Your task to perform on an android device: Clear the shopping cart on target. Add "lenovo thinkpad" to the cart on target, then select checkout. Image 0: 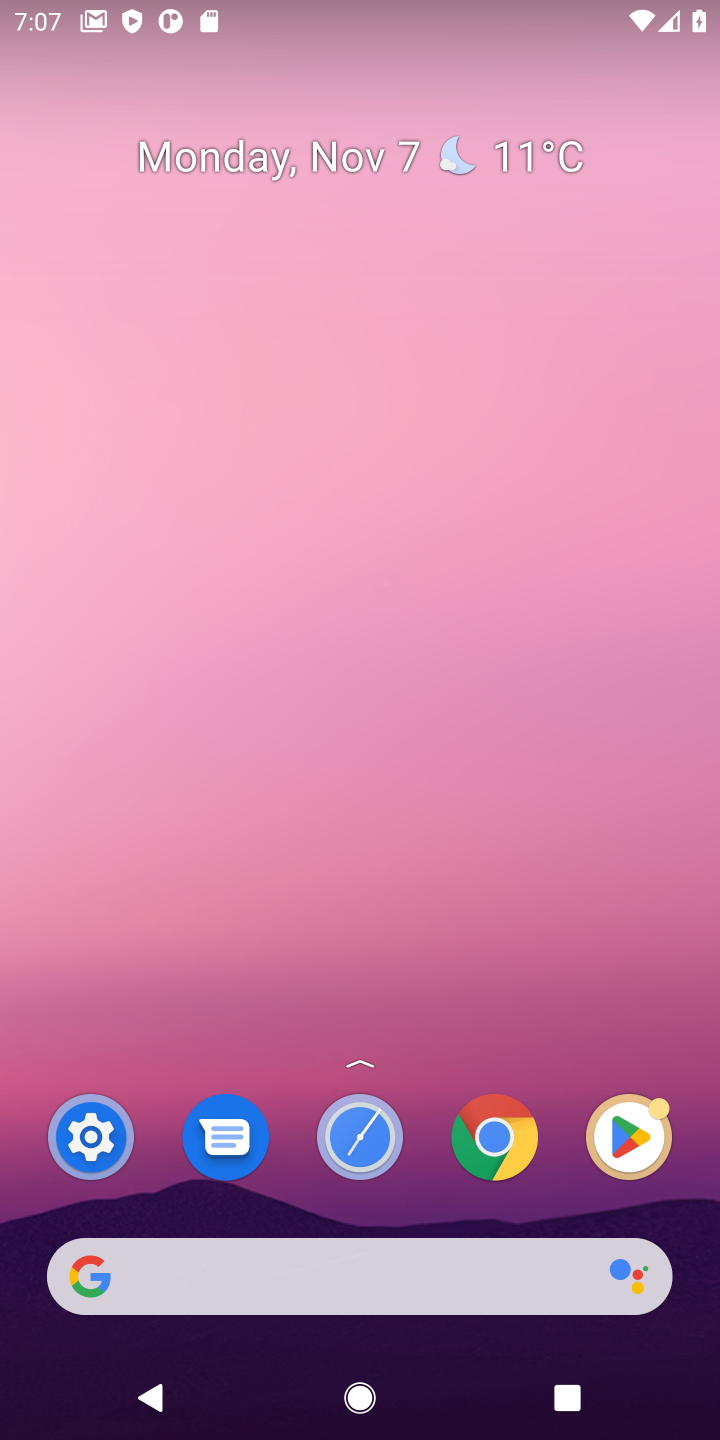
Step 0: click (485, 1140)
Your task to perform on an android device: Clear the shopping cart on target. Add "lenovo thinkpad" to the cart on target, then select checkout. Image 1: 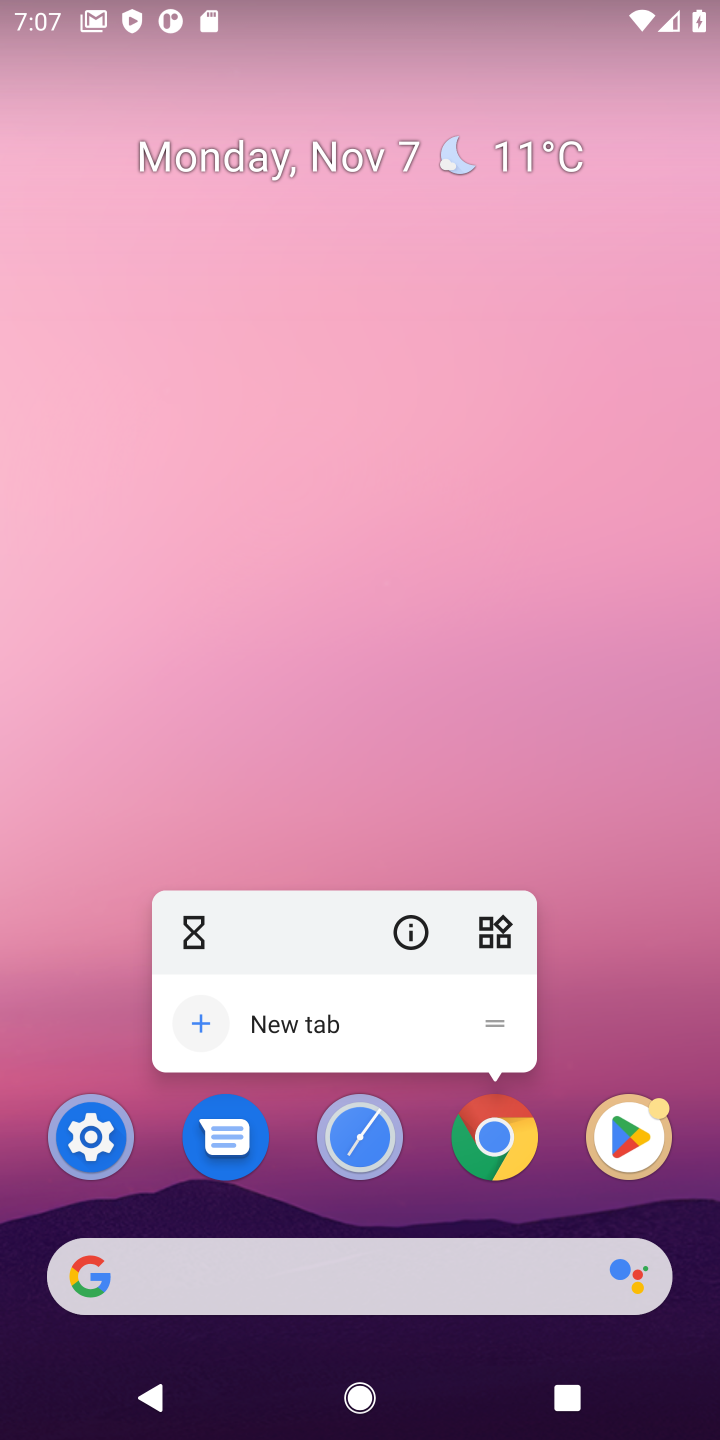
Step 1: click (487, 1125)
Your task to perform on an android device: Clear the shopping cart on target. Add "lenovo thinkpad" to the cart on target, then select checkout. Image 2: 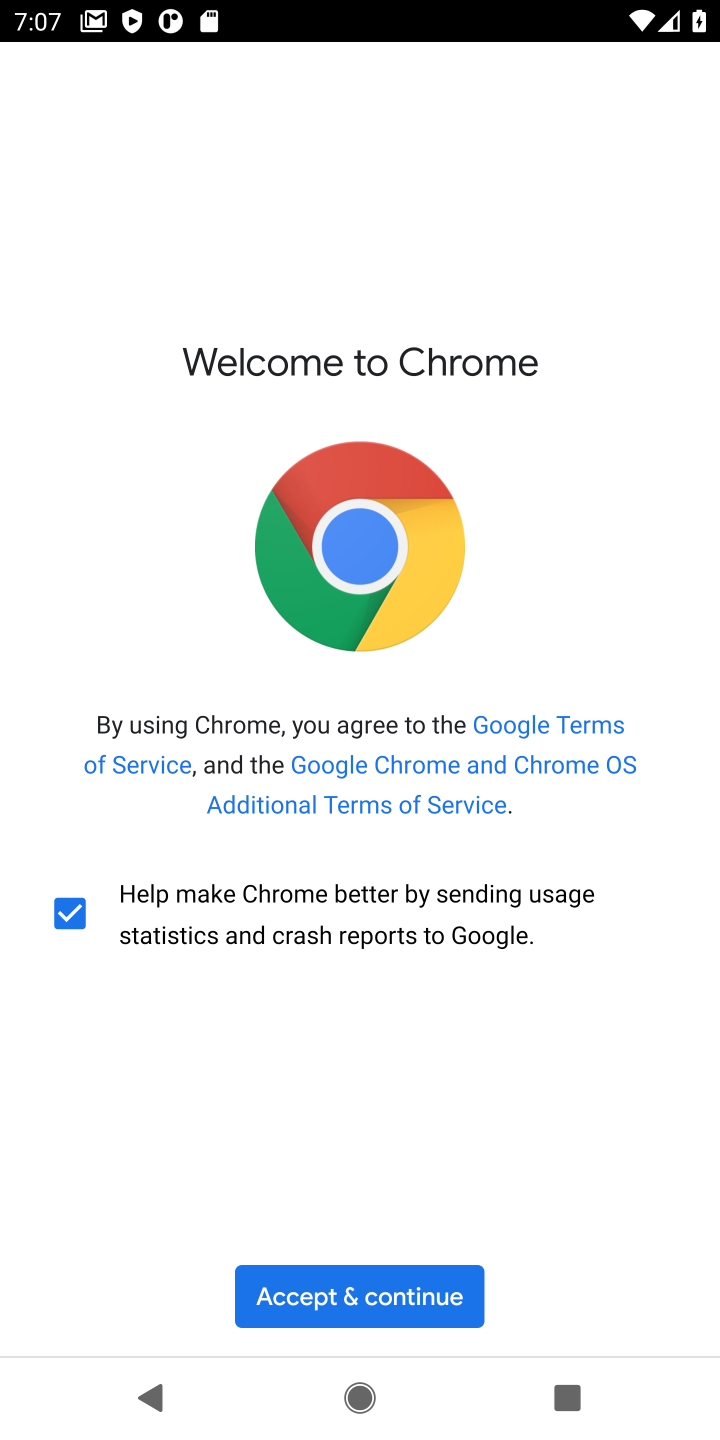
Step 2: click (422, 1283)
Your task to perform on an android device: Clear the shopping cart on target. Add "lenovo thinkpad" to the cart on target, then select checkout. Image 3: 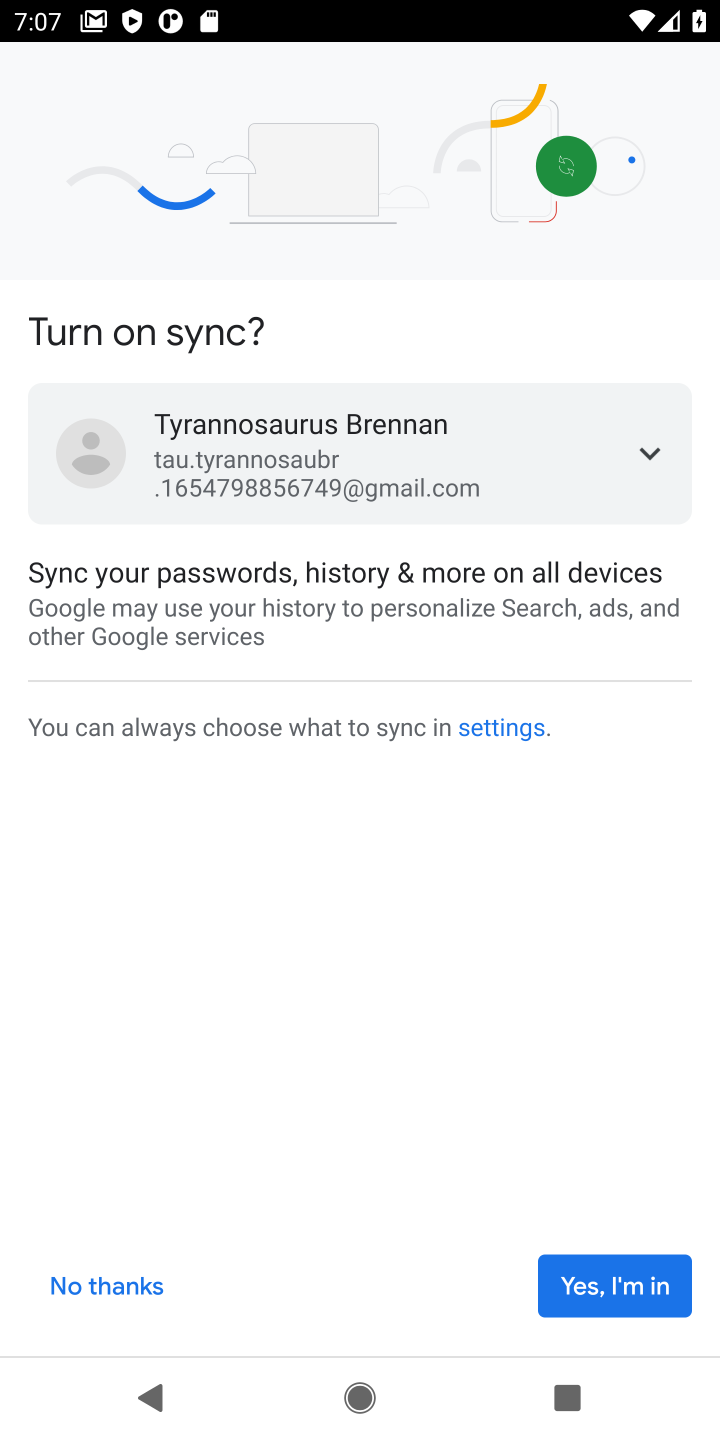
Step 3: click (593, 1282)
Your task to perform on an android device: Clear the shopping cart on target. Add "lenovo thinkpad" to the cart on target, then select checkout. Image 4: 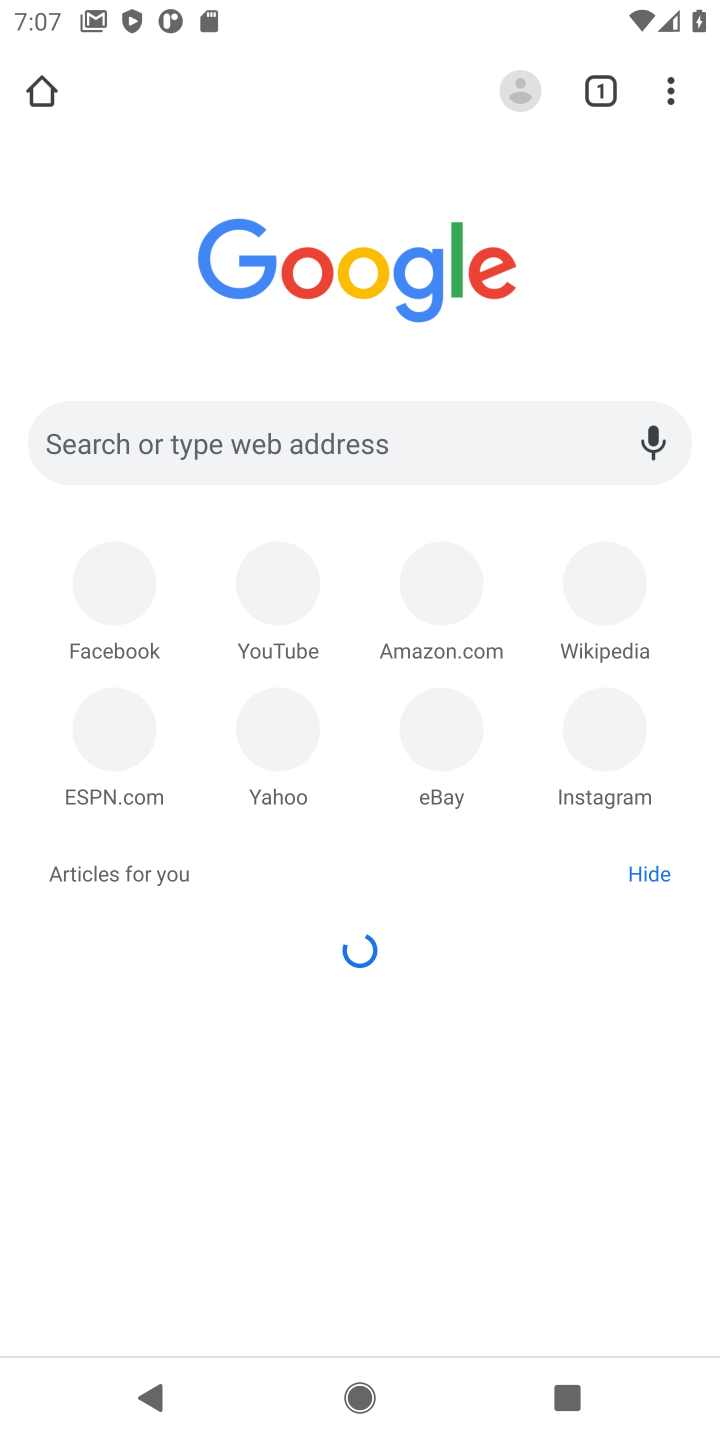
Step 4: click (402, 457)
Your task to perform on an android device: Clear the shopping cart on target. Add "lenovo thinkpad" to the cart on target, then select checkout. Image 5: 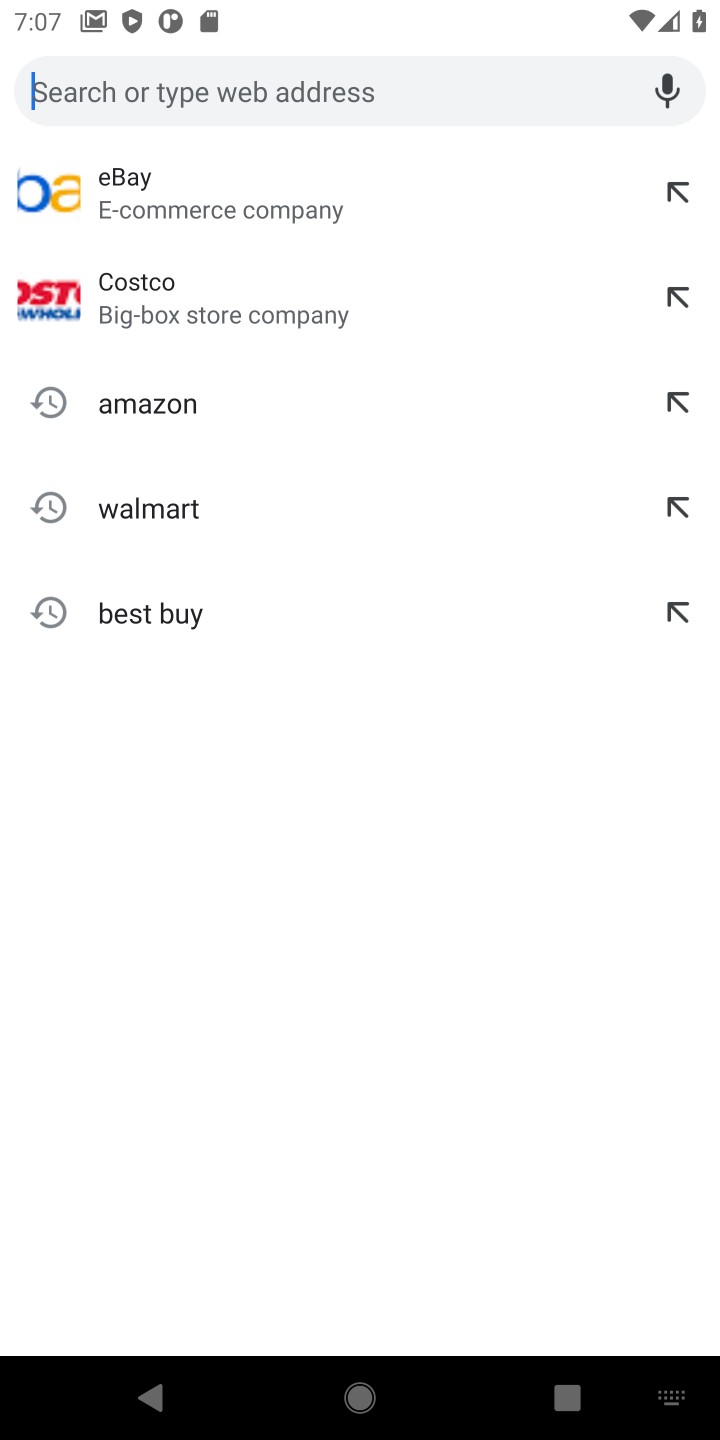
Step 5: type "target"
Your task to perform on an android device: Clear the shopping cart on target. Add "lenovo thinkpad" to the cart on target, then select checkout. Image 6: 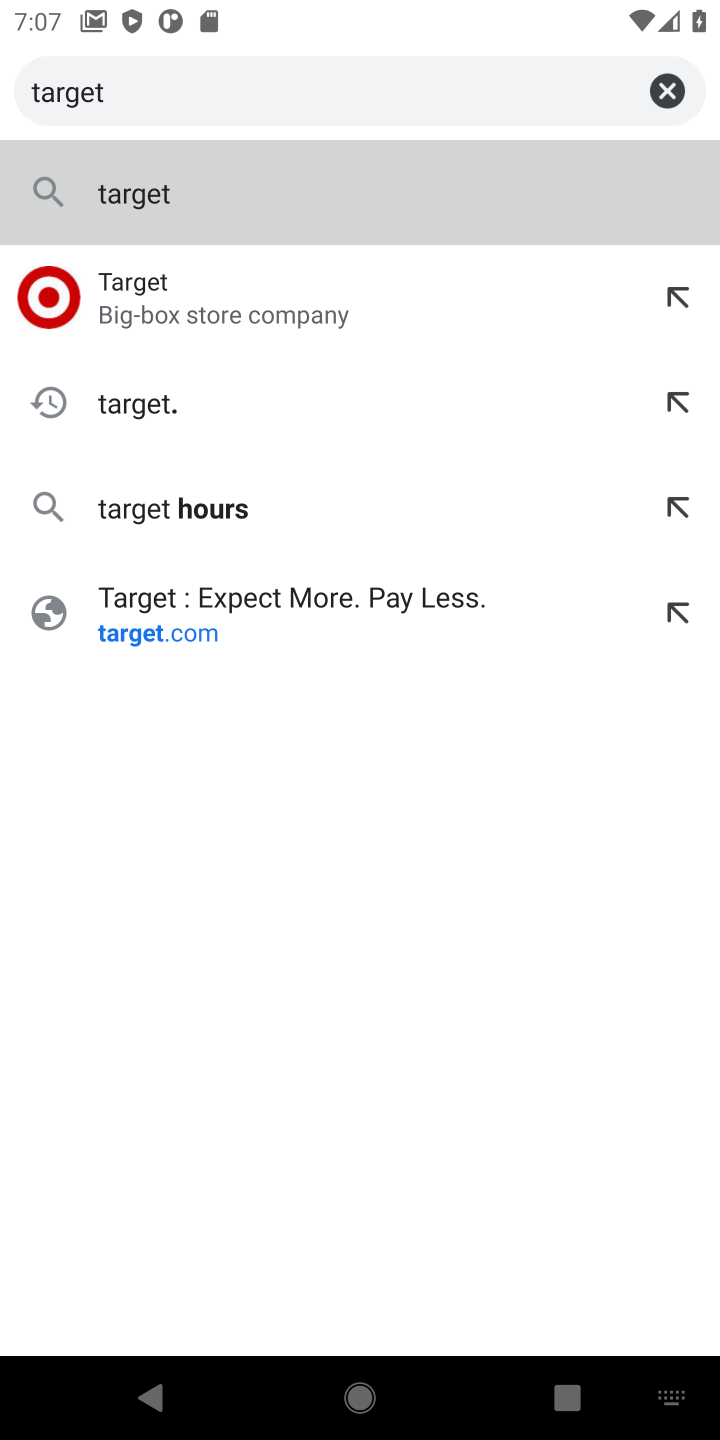
Step 6: click (189, 301)
Your task to perform on an android device: Clear the shopping cart on target. Add "lenovo thinkpad" to the cart on target, then select checkout. Image 7: 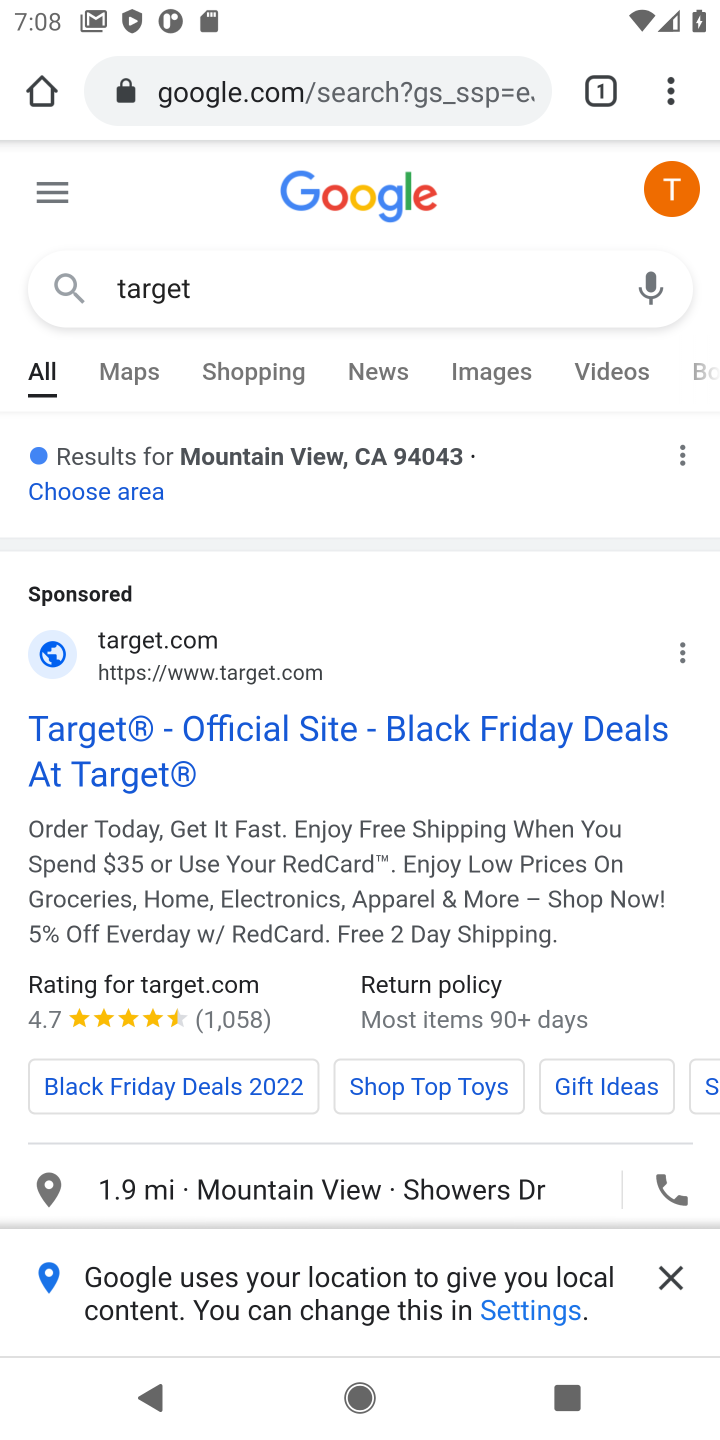
Step 7: drag from (342, 1167) to (492, 343)
Your task to perform on an android device: Clear the shopping cart on target. Add "lenovo thinkpad" to the cart on target, then select checkout. Image 8: 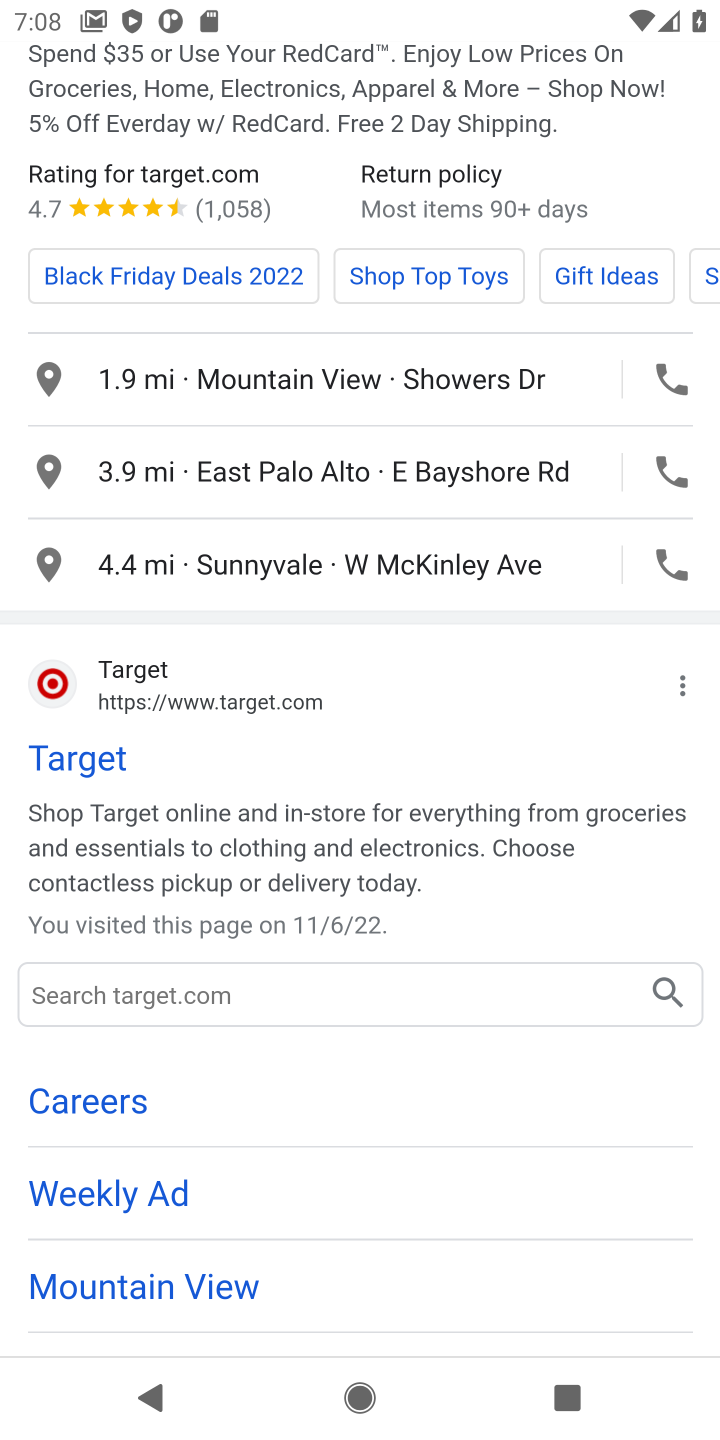
Step 8: click (111, 984)
Your task to perform on an android device: Clear the shopping cart on target. Add "lenovo thinkpad" to the cart on target, then select checkout. Image 9: 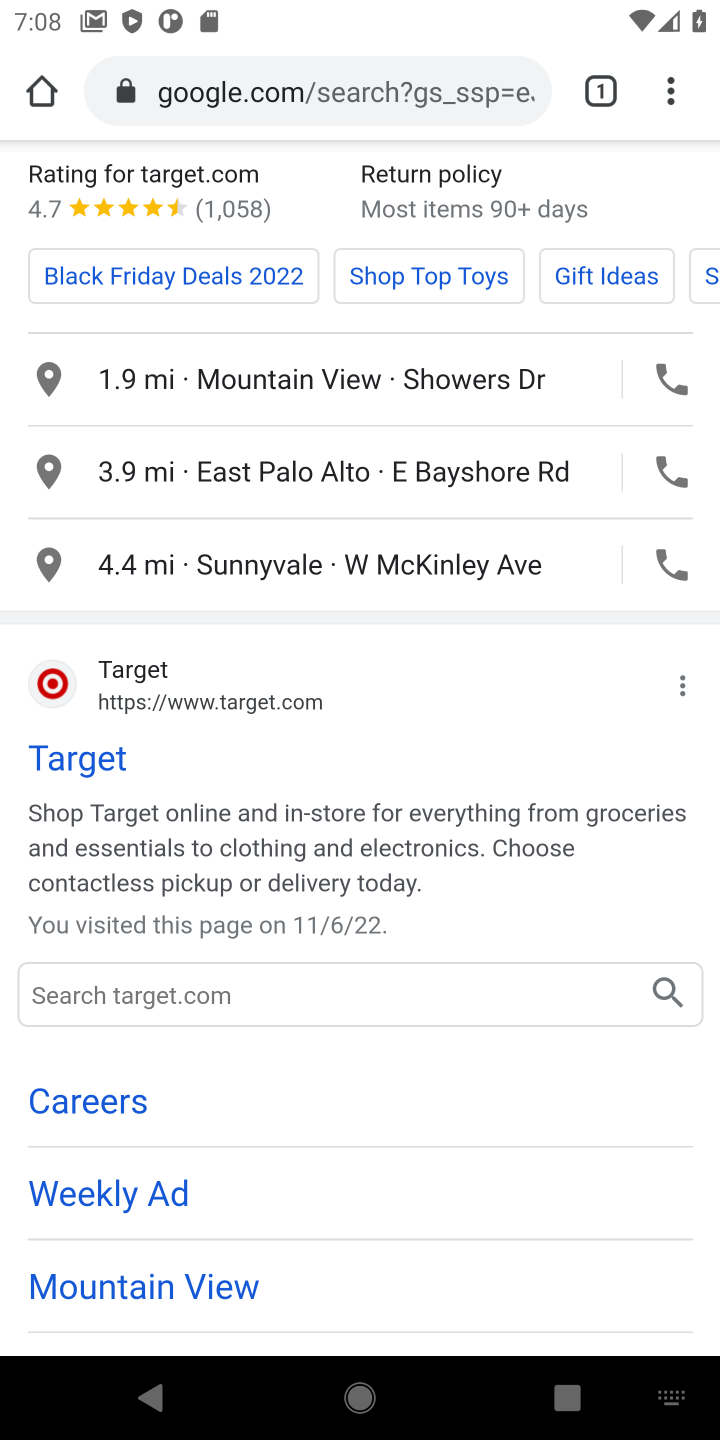
Step 9: type "lenovo thinkpad"
Your task to perform on an android device: Clear the shopping cart on target. Add "lenovo thinkpad" to the cart on target, then select checkout. Image 10: 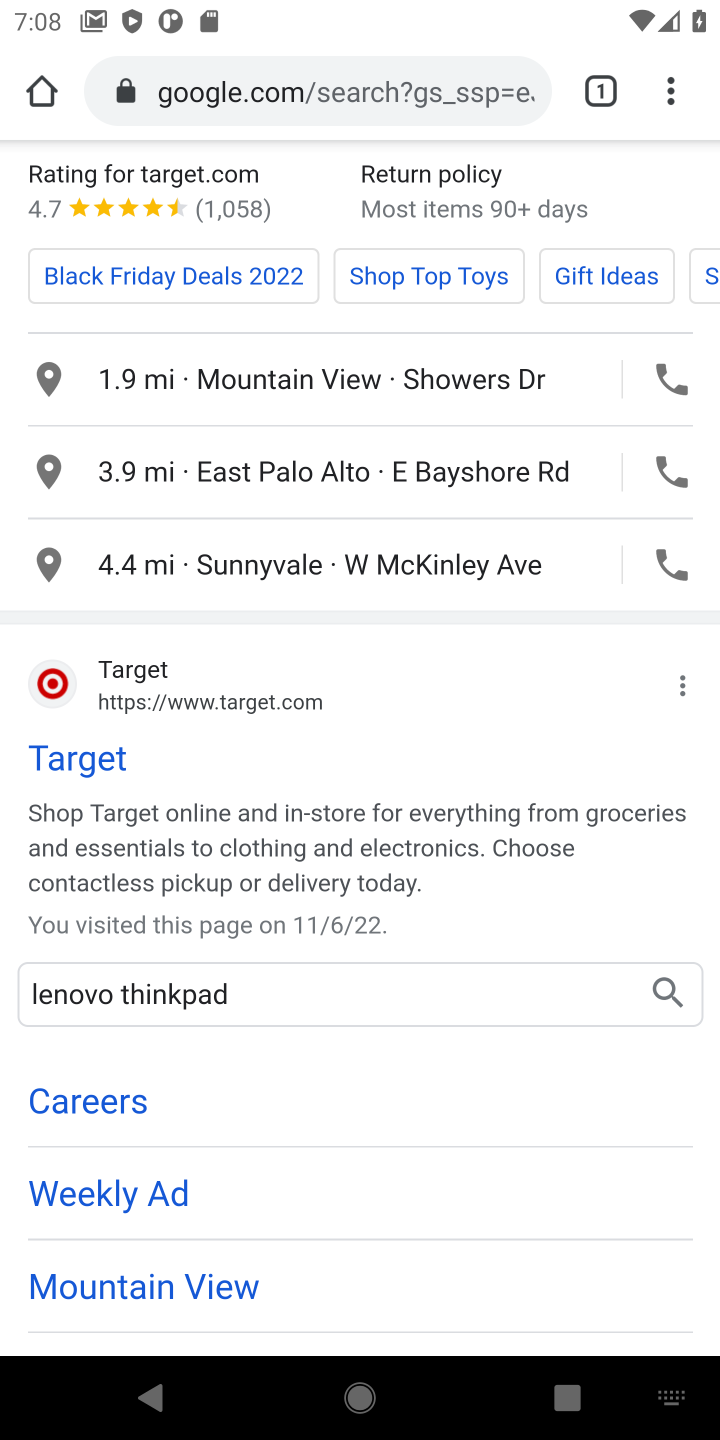
Step 10: click (665, 977)
Your task to perform on an android device: Clear the shopping cart on target. Add "lenovo thinkpad" to the cart on target, then select checkout. Image 11: 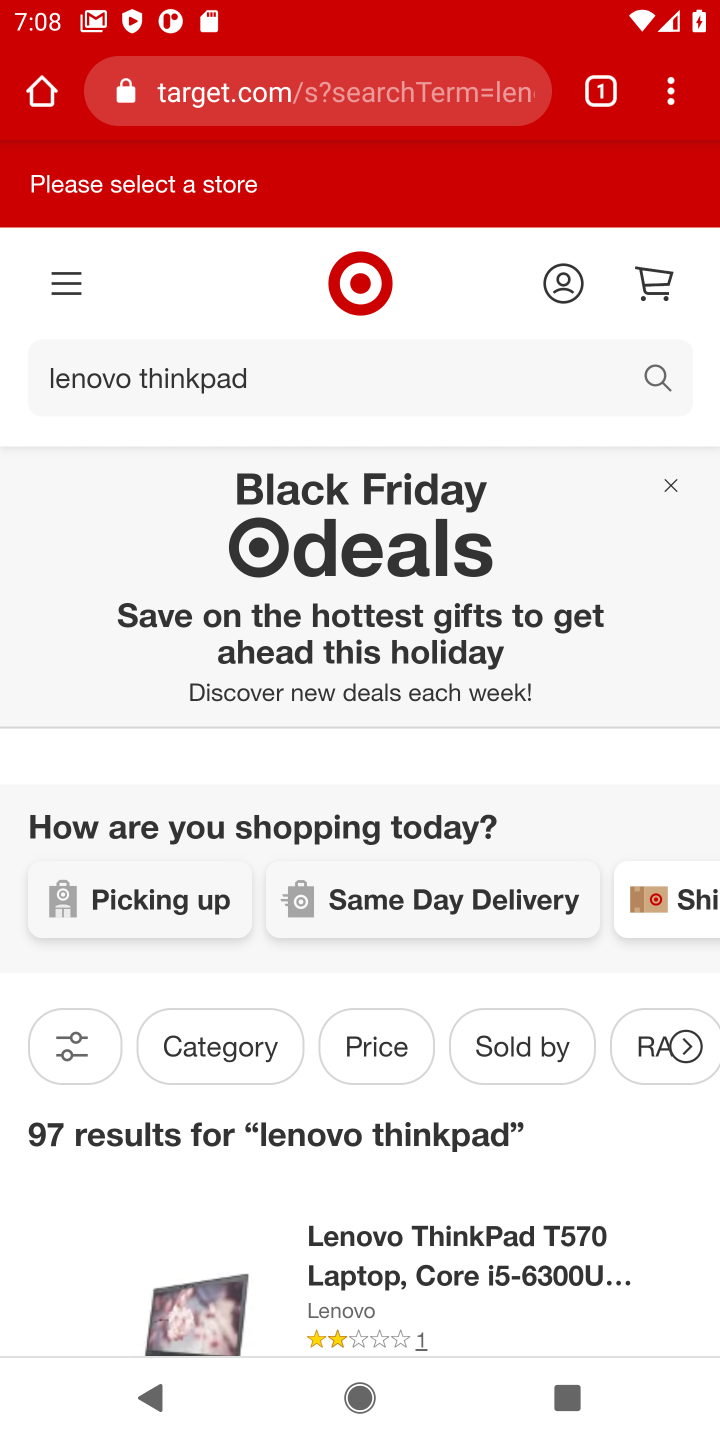
Step 11: drag from (260, 1175) to (660, 60)
Your task to perform on an android device: Clear the shopping cart on target. Add "lenovo thinkpad" to the cart on target, then select checkout. Image 12: 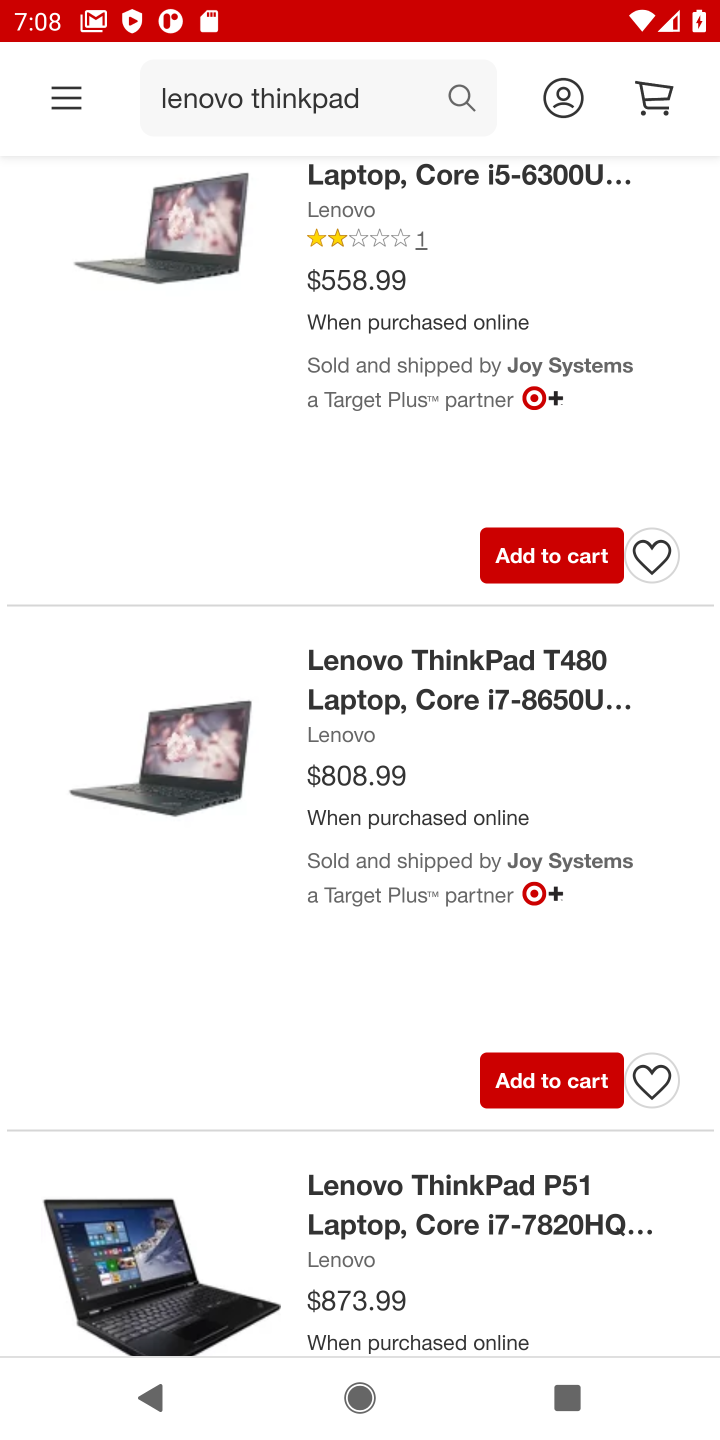
Step 12: click (520, 562)
Your task to perform on an android device: Clear the shopping cart on target. Add "lenovo thinkpad" to the cart on target, then select checkout. Image 13: 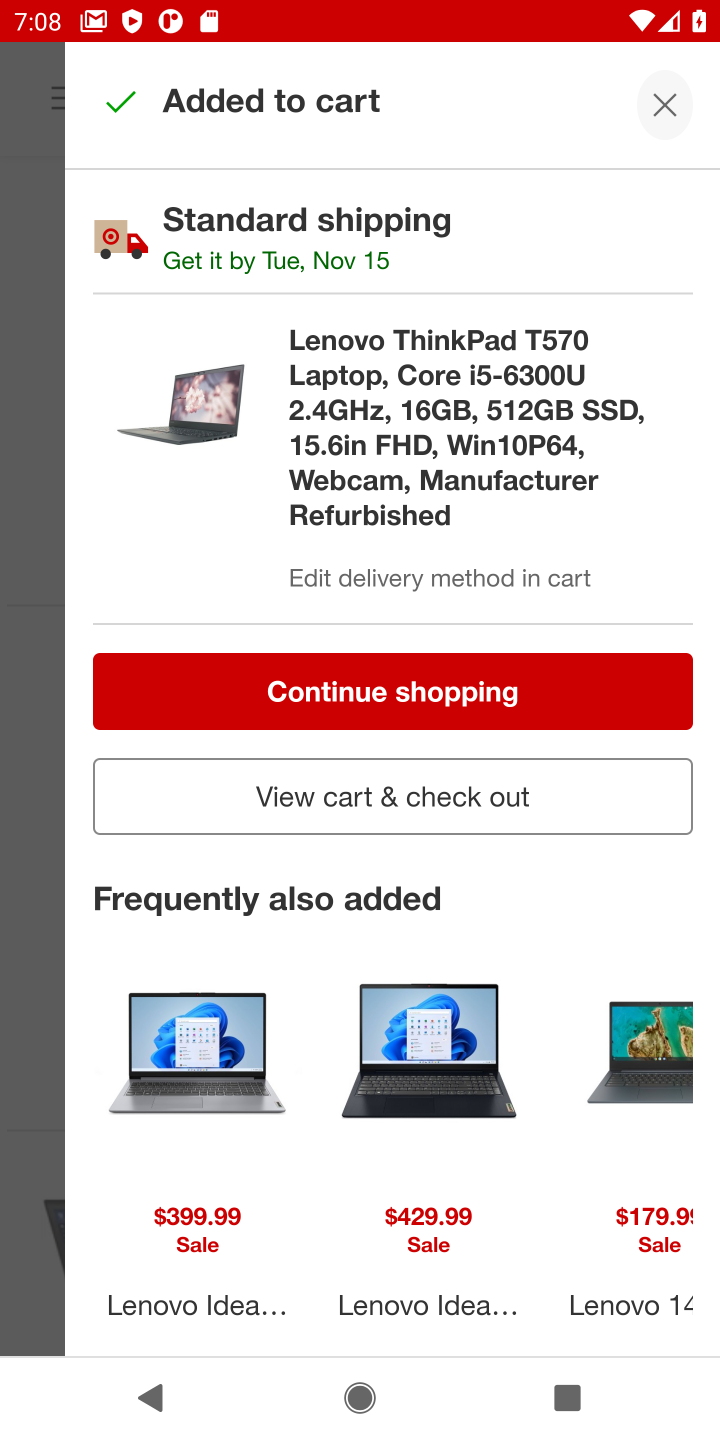
Step 13: click (441, 808)
Your task to perform on an android device: Clear the shopping cart on target. Add "lenovo thinkpad" to the cart on target, then select checkout. Image 14: 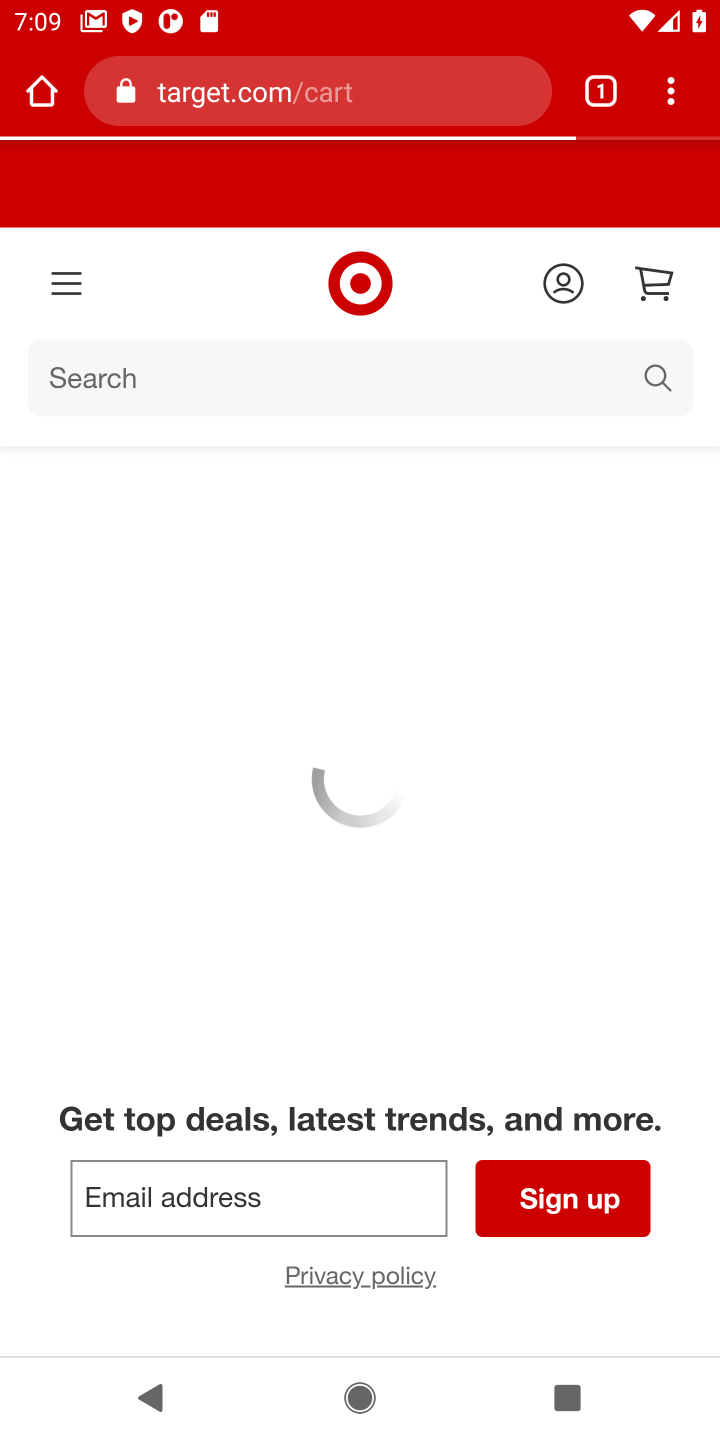
Step 14: task complete